Your task to perform on an android device: View the shopping cart on costco.com. Search for usb-c to usb-a on costco.com, select the first entry, add it to the cart, then select checkout. Image 0: 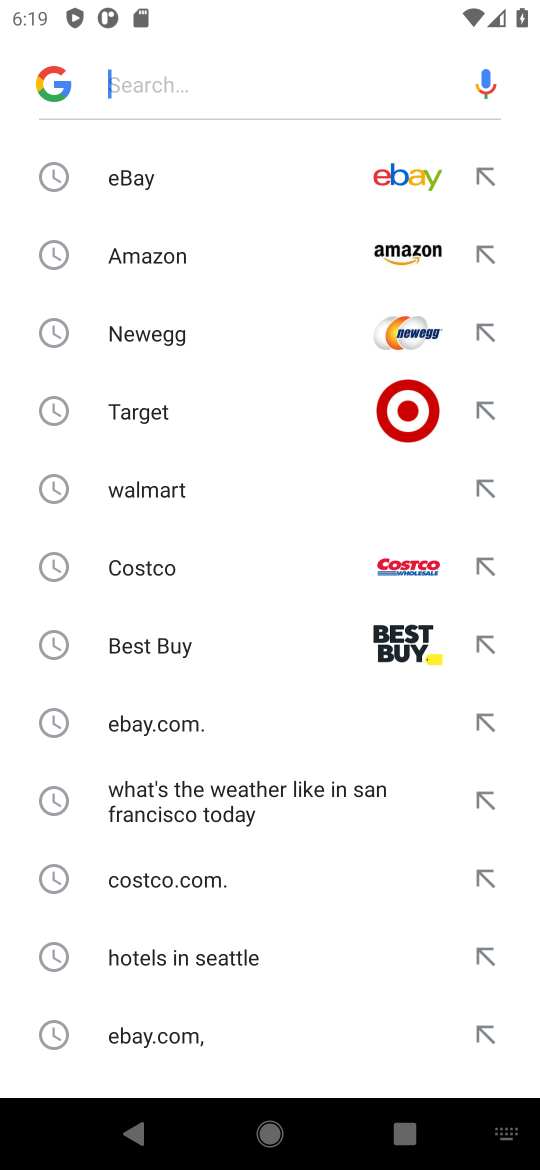
Step 0: click (192, 879)
Your task to perform on an android device: View the shopping cart on costco.com. Search for usb-c to usb-a on costco.com, select the first entry, add it to the cart, then select checkout. Image 1: 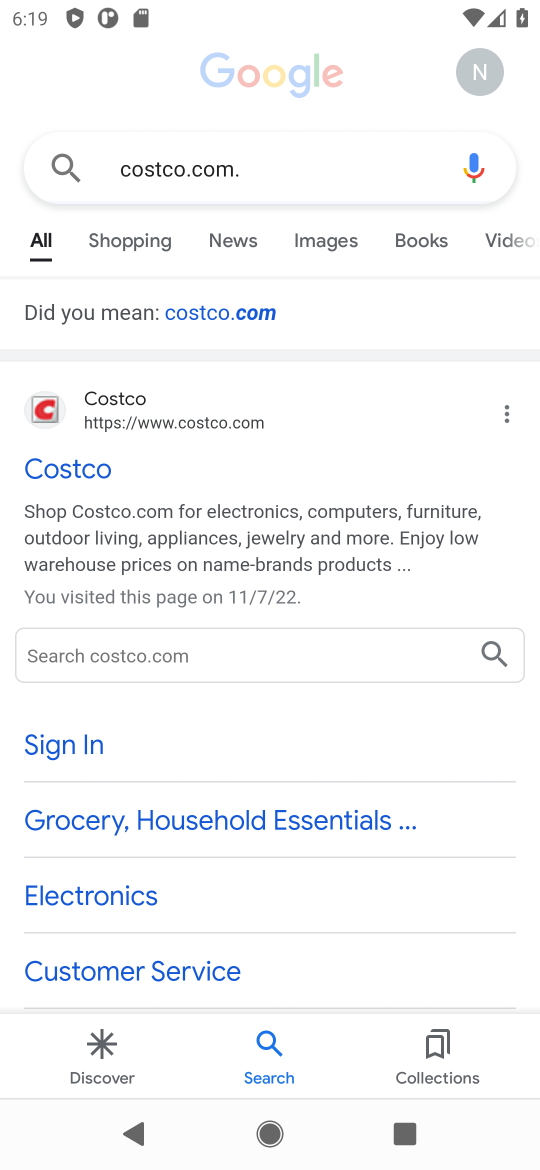
Step 1: click (273, 97)
Your task to perform on an android device: View the shopping cart on costco.com. Search for usb-c to usb-a on costco.com, select the first entry, add it to the cart, then select checkout. Image 2: 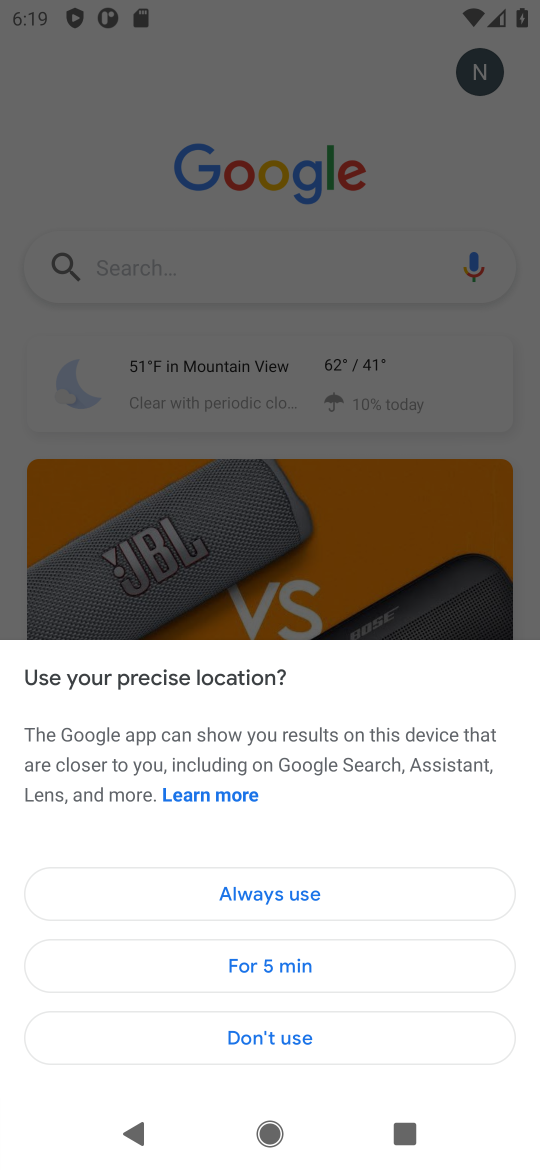
Step 2: click (210, 262)
Your task to perform on an android device: View the shopping cart on costco.com. Search for usb-c to usb-a on costco.com, select the first entry, add it to the cart, then select checkout. Image 3: 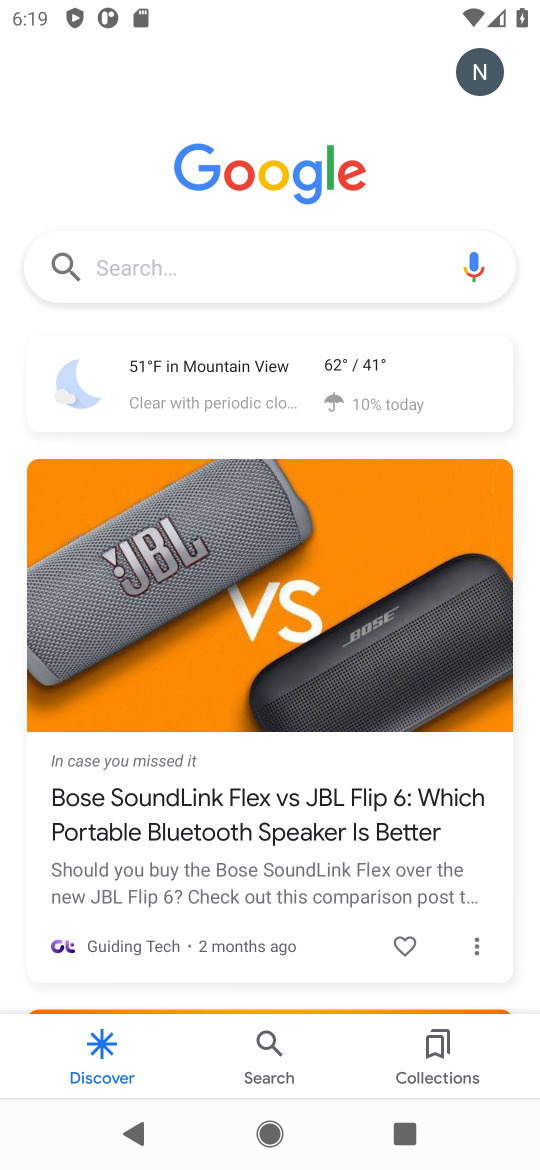
Step 3: click (116, 288)
Your task to perform on an android device: View the shopping cart on costco.com. Search for usb-c to usb-a on costco.com, select the first entry, add it to the cart, then select checkout. Image 4: 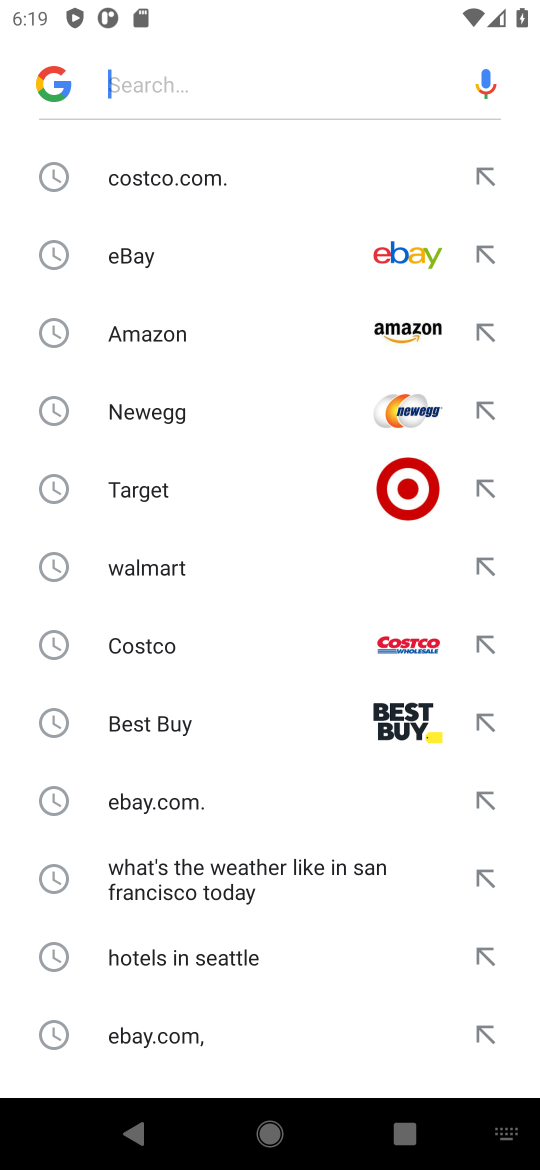
Step 4: click (139, 191)
Your task to perform on an android device: View the shopping cart on costco.com. Search for usb-c to usb-a on costco.com, select the first entry, add it to the cart, then select checkout. Image 5: 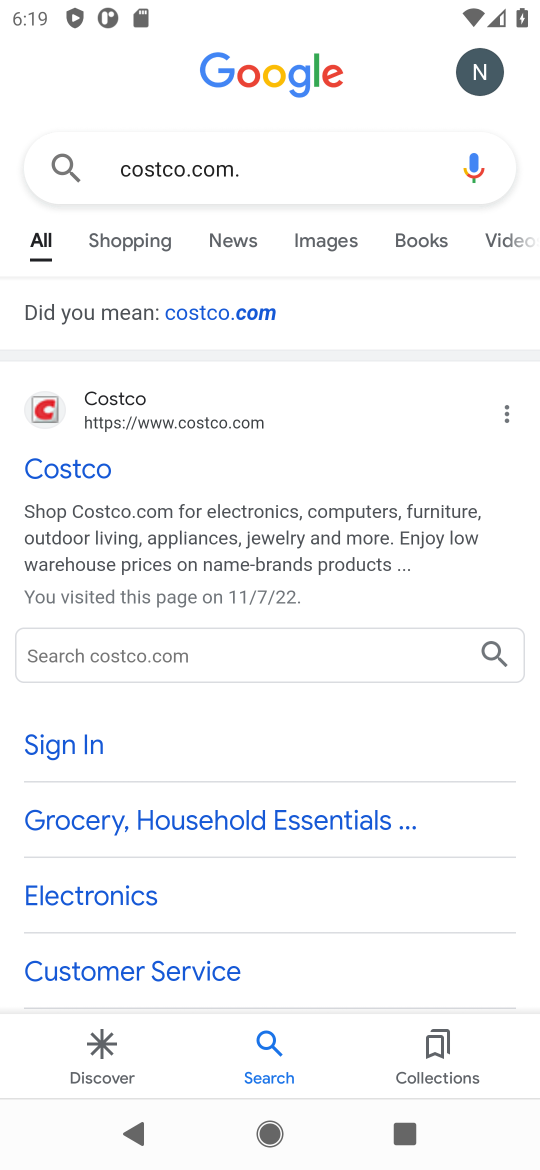
Step 5: click (104, 444)
Your task to perform on an android device: View the shopping cart on costco.com. Search for usb-c to usb-a on costco.com, select the first entry, add it to the cart, then select checkout. Image 6: 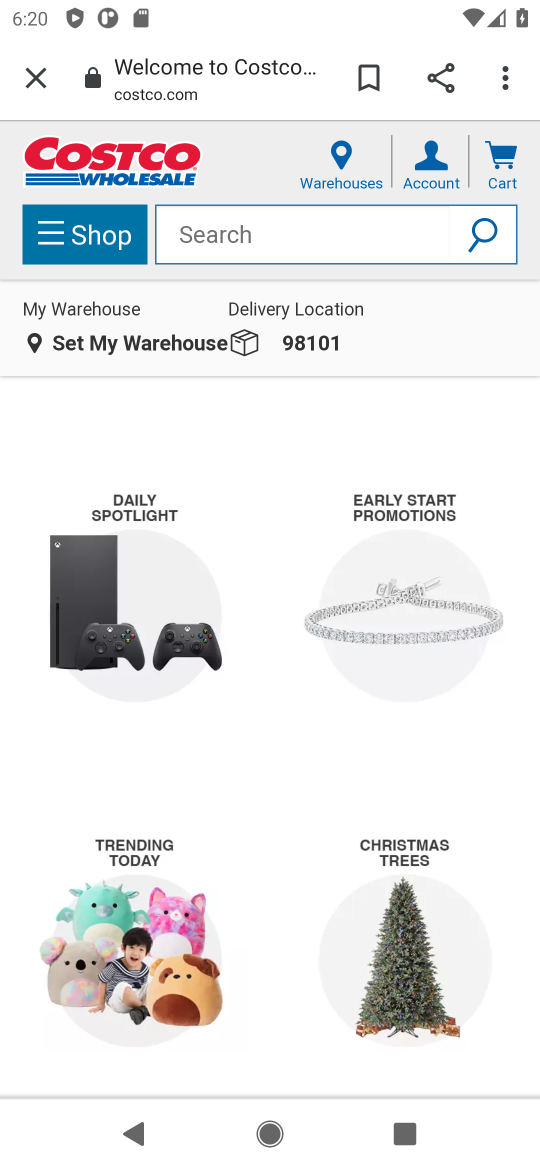
Step 6: click (413, 240)
Your task to perform on an android device: View the shopping cart on costco.com. Search for usb-c to usb-a on costco.com, select the first entry, add it to the cart, then select checkout. Image 7: 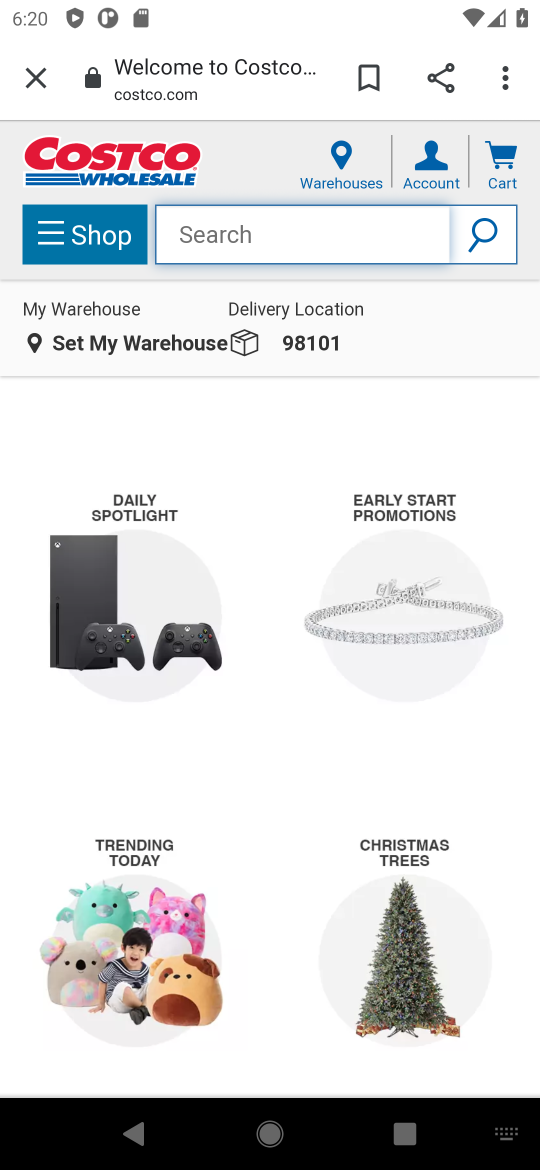
Step 7: type "usb-c to usb-a"
Your task to perform on an android device: View the shopping cart on costco.com. Search for usb-c to usb-a on costco.com, select the first entry, add it to the cart, then select checkout. Image 8: 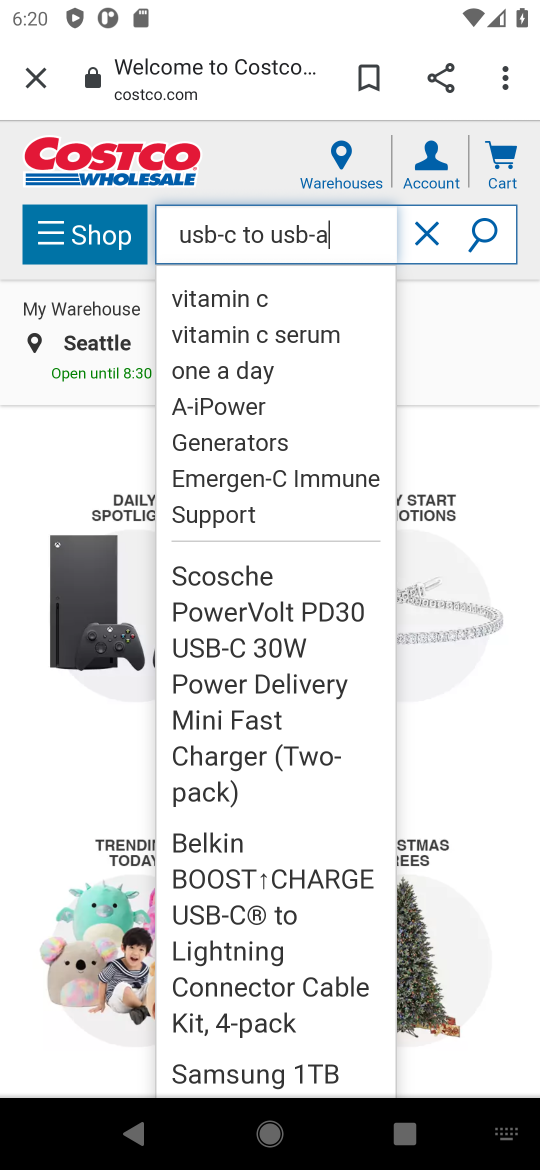
Step 8: click (484, 235)
Your task to perform on an android device: View the shopping cart on costco.com. Search for usb-c to usb-a on costco.com, select the first entry, add it to the cart, then select checkout. Image 9: 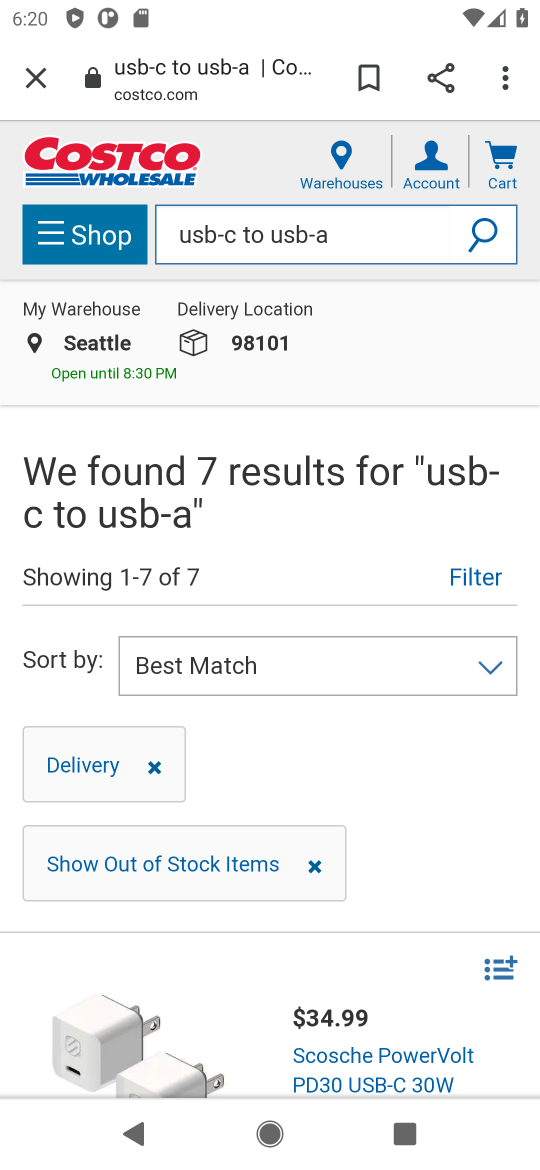
Step 9: task complete